Your task to perform on an android device: Open Google Chrome Image 0: 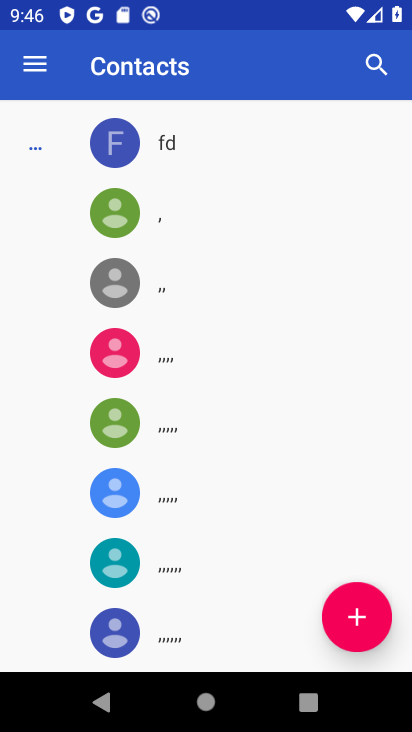
Step 0: press home button
Your task to perform on an android device: Open Google Chrome Image 1: 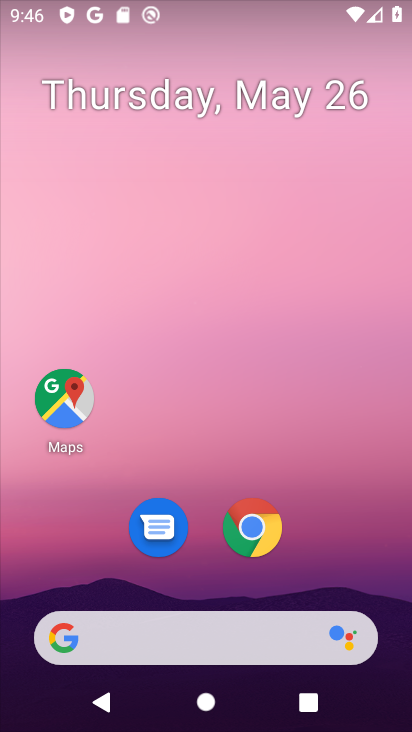
Step 1: click (266, 533)
Your task to perform on an android device: Open Google Chrome Image 2: 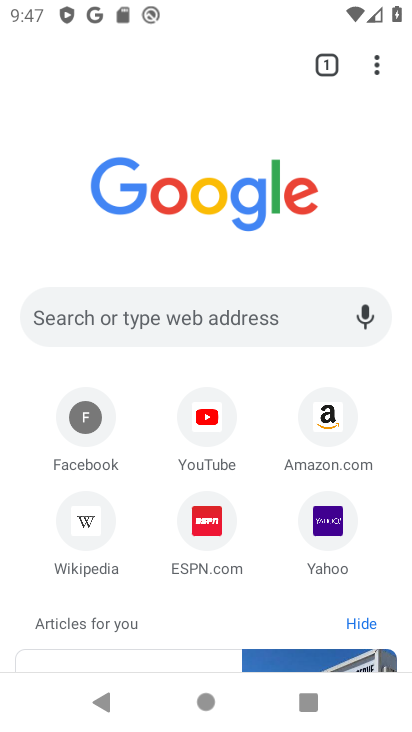
Step 2: task complete